Your task to perform on an android device: Show me recent news Image 0: 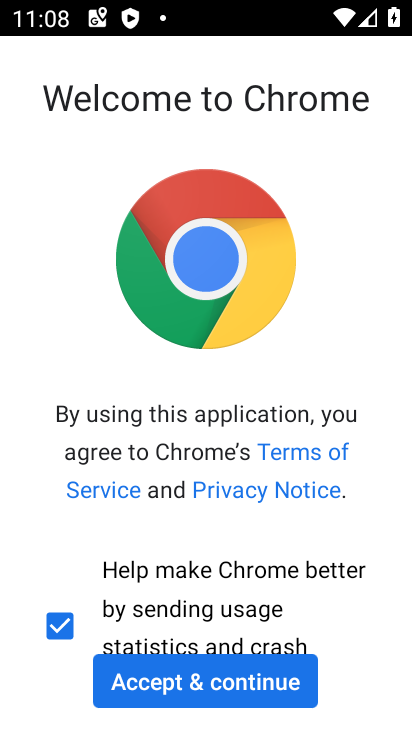
Step 0: press home button
Your task to perform on an android device: Show me recent news Image 1: 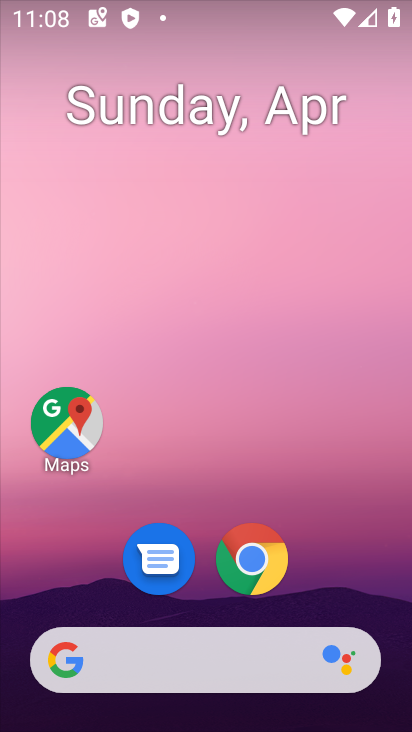
Step 1: drag from (327, 595) to (334, 73)
Your task to perform on an android device: Show me recent news Image 2: 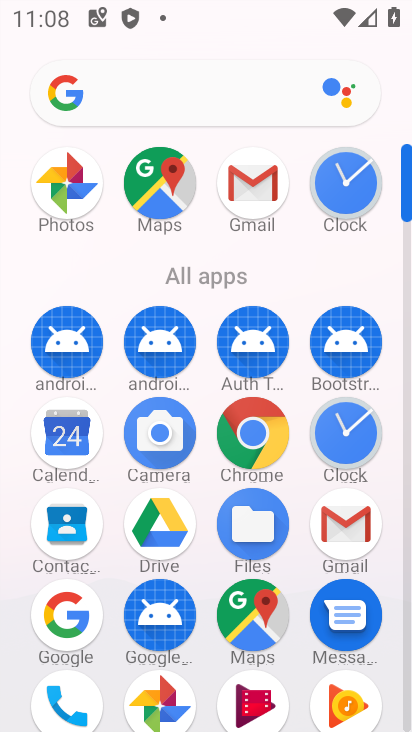
Step 2: click (214, 117)
Your task to perform on an android device: Show me recent news Image 3: 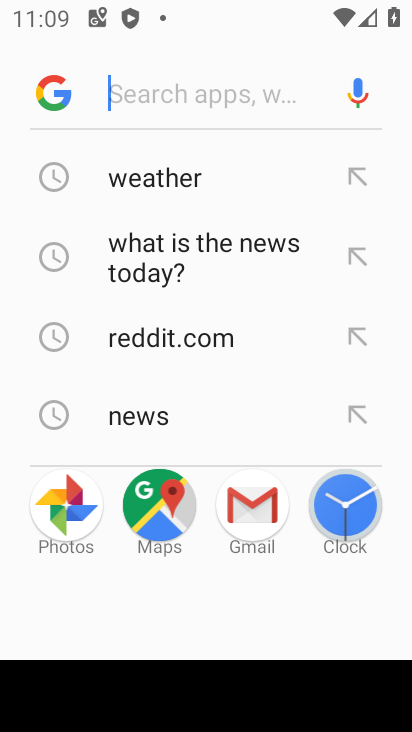
Step 3: type "recent news"
Your task to perform on an android device: Show me recent news Image 4: 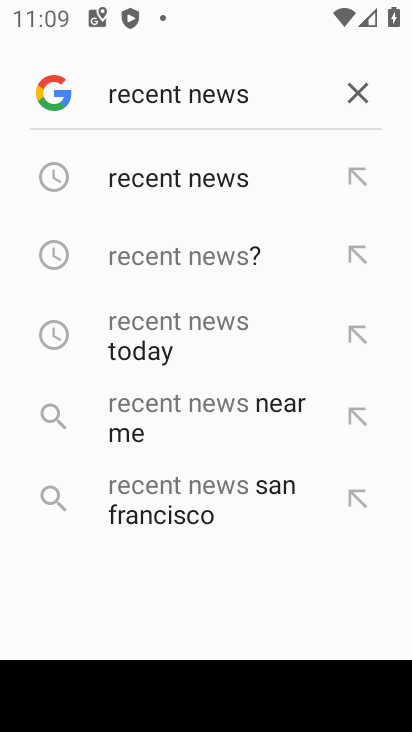
Step 4: click (181, 180)
Your task to perform on an android device: Show me recent news Image 5: 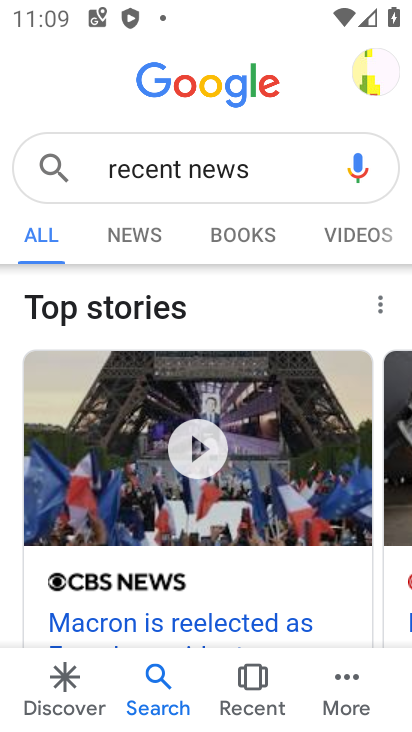
Step 5: click (153, 235)
Your task to perform on an android device: Show me recent news Image 6: 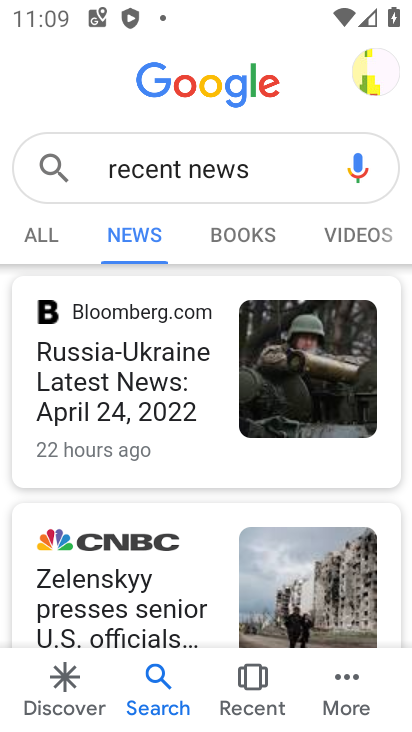
Step 6: task complete